Your task to perform on an android device: Go to Android settings Image 0: 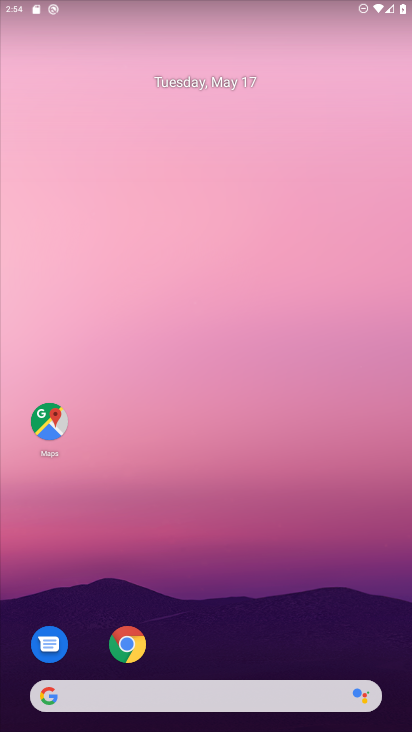
Step 0: drag from (240, 612) to (193, 111)
Your task to perform on an android device: Go to Android settings Image 1: 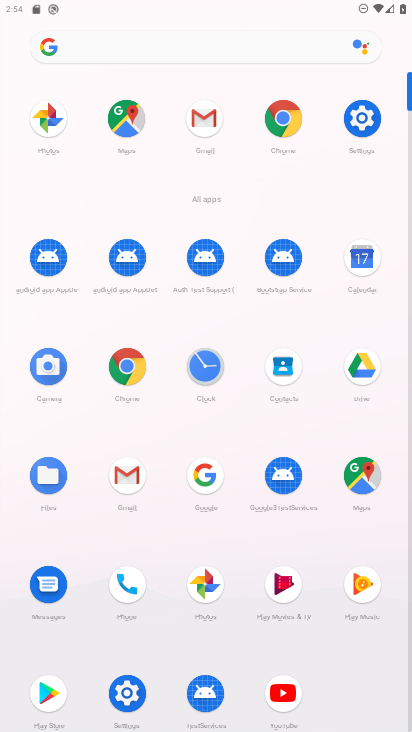
Step 1: click (361, 127)
Your task to perform on an android device: Go to Android settings Image 2: 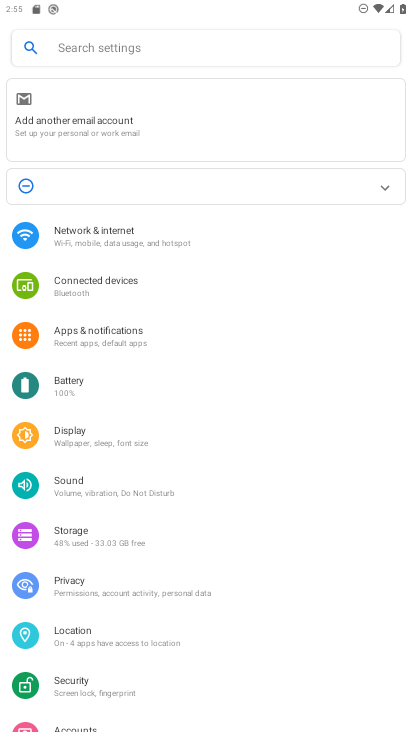
Step 2: task complete